Your task to perform on an android device: turn on improve location accuracy Image 0: 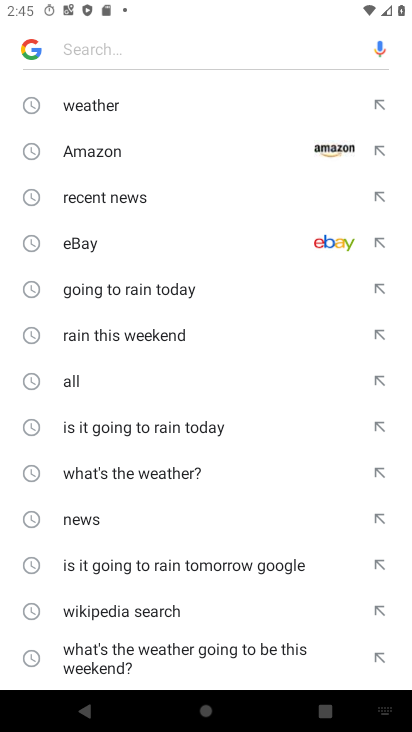
Step 0: press home button
Your task to perform on an android device: turn on improve location accuracy Image 1: 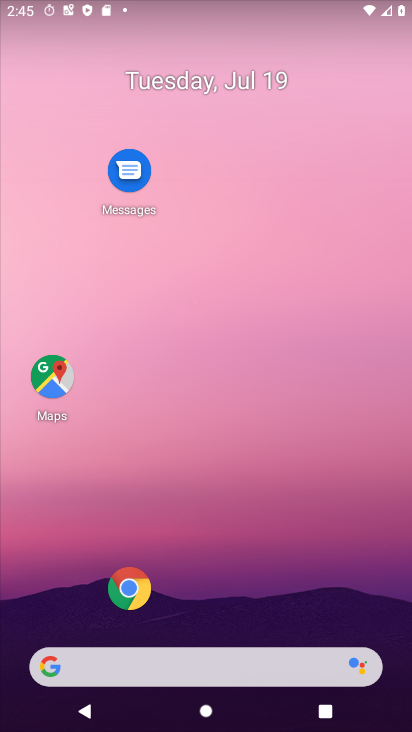
Step 1: drag from (18, 696) to (176, 225)
Your task to perform on an android device: turn on improve location accuracy Image 2: 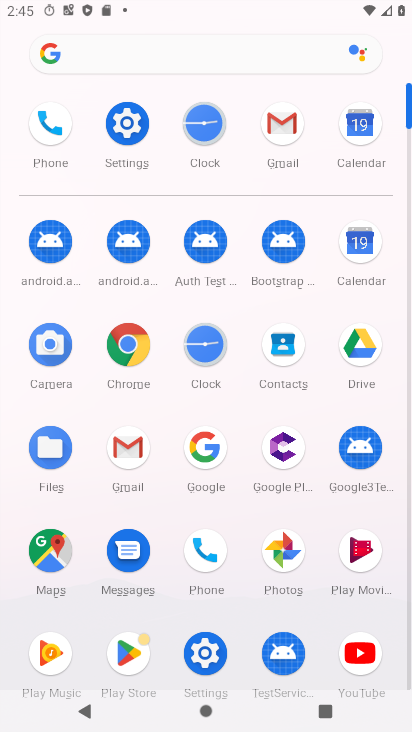
Step 2: click (207, 645)
Your task to perform on an android device: turn on improve location accuracy Image 3: 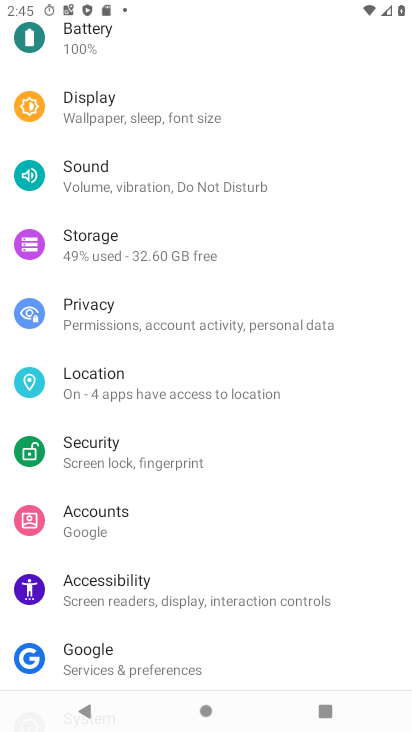
Step 3: click (74, 393)
Your task to perform on an android device: turn on improve location accuracy Image 4: 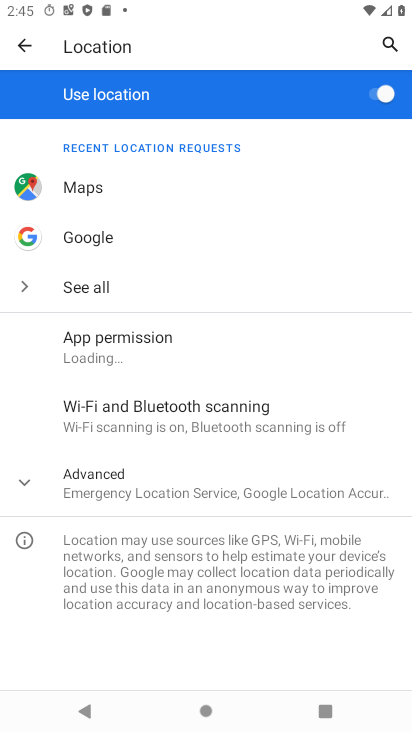
Step 4: click (107, 488)
Your task to perform on an android device: turn on improve location accuracy Image 5: 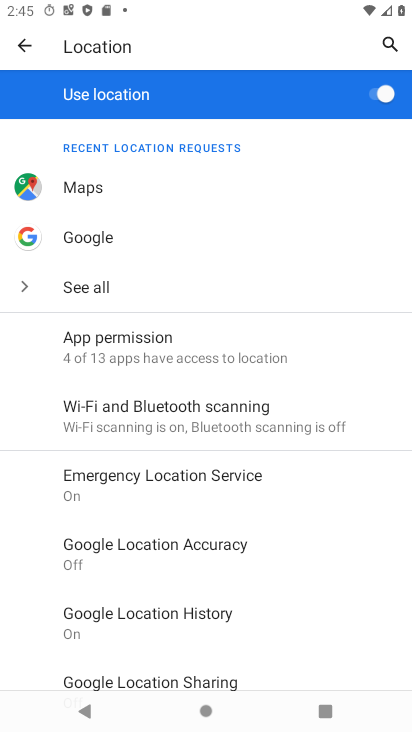
Step 5: drag from (284, 644) to (328, 240)
Your task to perform on an android device: turn on improve location accuracy Image 6: 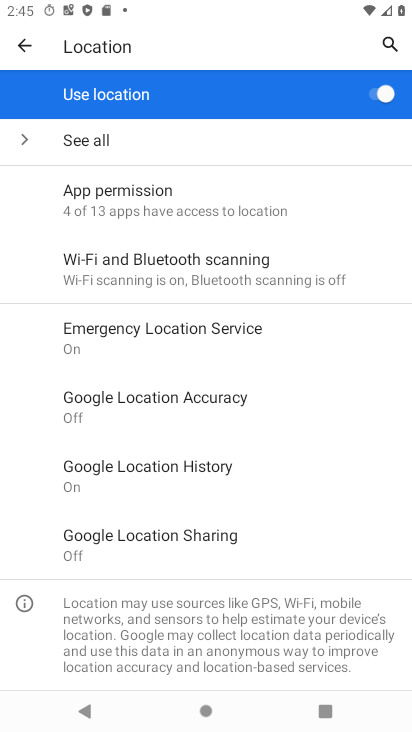
Step 6: click (192, 406)
Your task to perform on an android device: turn on improve location accuracy Image 7: 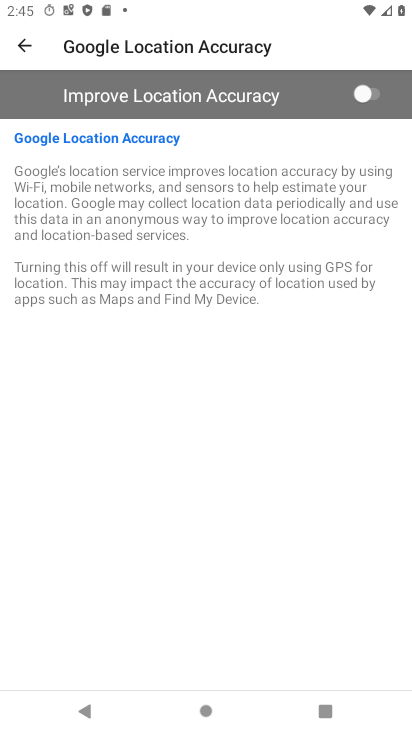
Step 7: click (364, 95)
Your task to perform on an android device: turn on improve location accuracy Image 8: 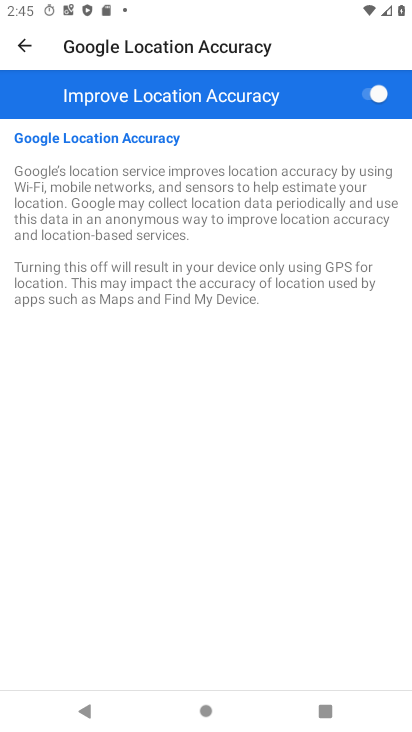
Step 8: task complete